Your task to perform on an android device: open a new tab in the chrome app Image 0: 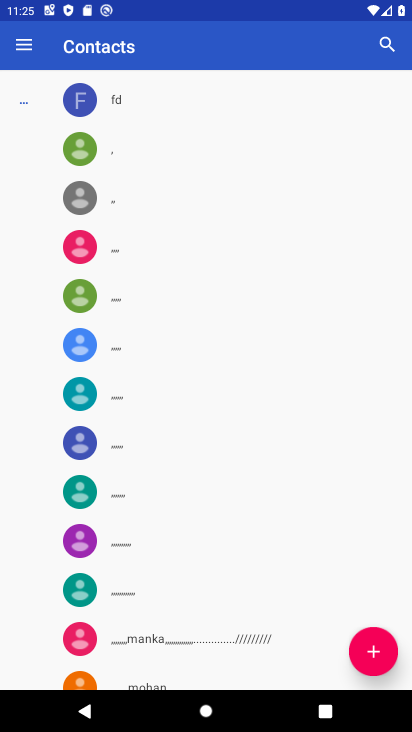
Step 0: press back button
Your task to perform on an android device: open a new tab in the chrome app Image 1: 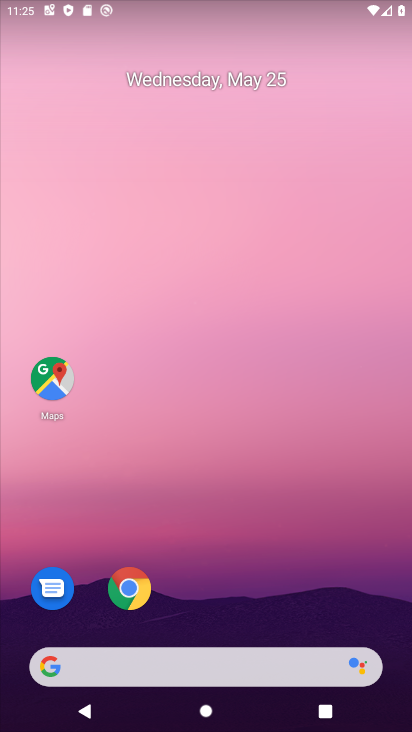
Step 1: drag from (218, 557) to (204, 0)
Your task to perform on an android device: open a new tab in the chrome app Image 2: 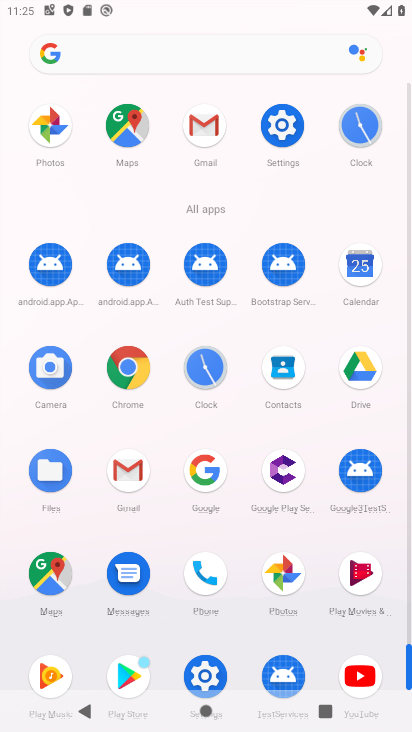
Step 2: click (127, 365)
Your task to perform on an android device: open a new tab in the chrome app Image 3: 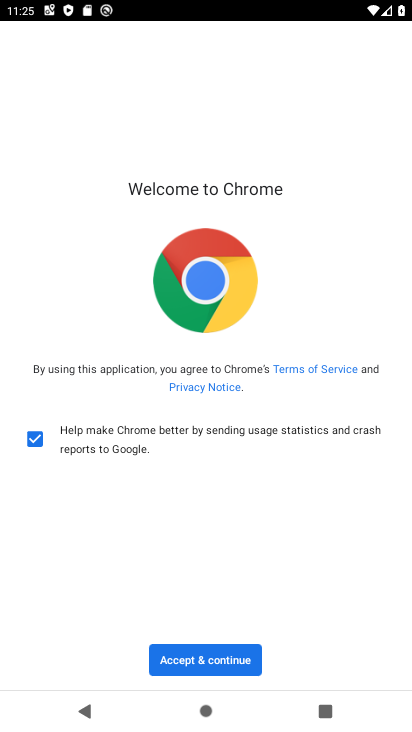
Step 3: click (194, 651)
Your task to perform on an android device: open a new tab in the chrome app Image 4: 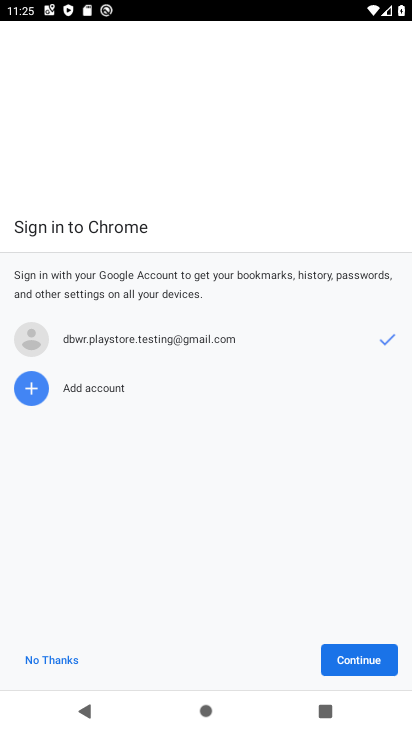
Step 4: click (339, 659)
Your task to perform on an android device: open a new tab in the chrome app Image 5: 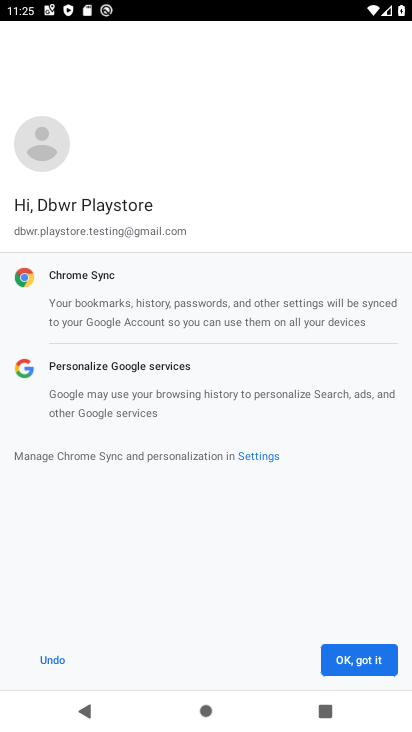
Step 5: click (339, 659)
Your task to perform on an android device: open a new tab in the chrome app Image 6: 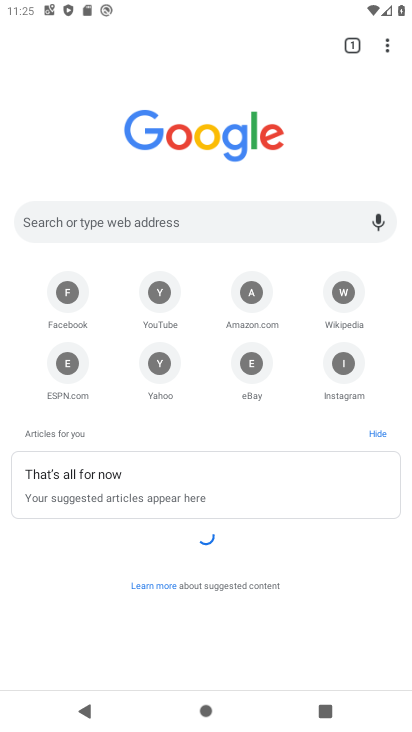
Step 6: task complete